Your task to perform on an android device: turn off notifications settings in the gmail app Image 0: 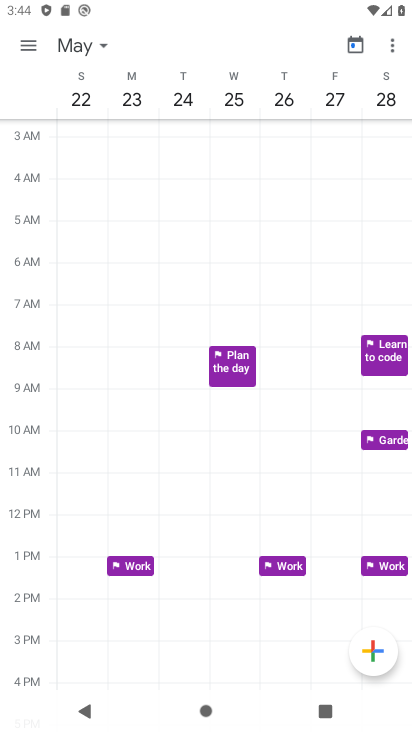
Step 0: press home button
Your task to perform on an android device: turn off notifications settings in the gmail app Image 1: 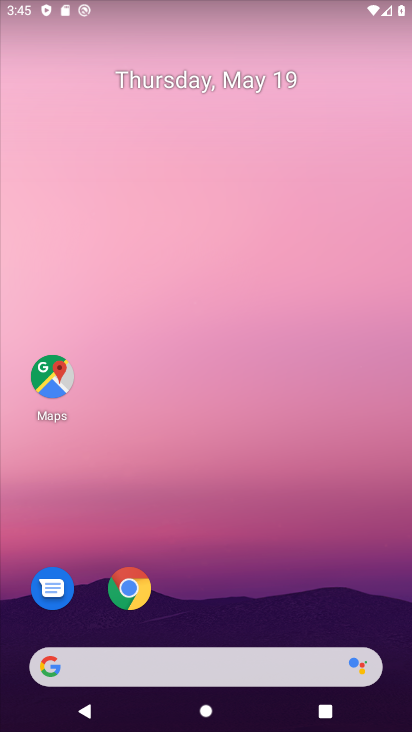
Step 1: drag from (229, 613) to (269, 180)
Your task to perform on an android device: turn off notifications settings in the gmail app Image 2: 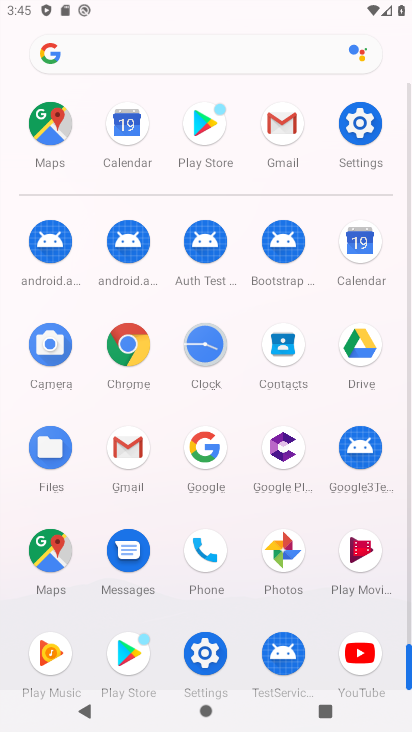
Step 2: click (131, 447)
Your task to perform on an android device: turn off notifications settings in the gmail app Image 3: 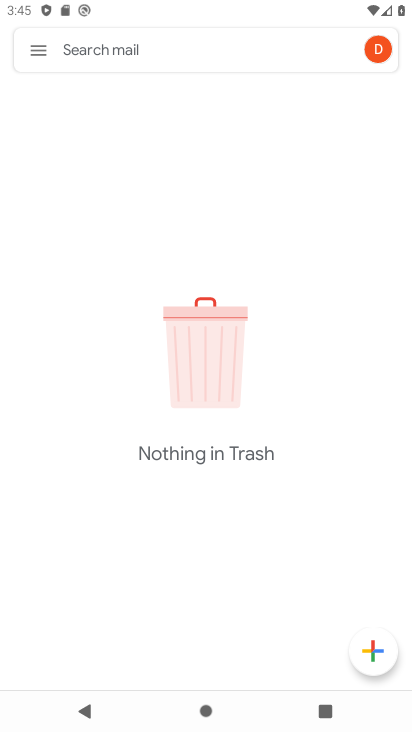
Step 3: click (31, 50)
Your task to perform on an android device: turn off notifications settings in the gmail app Image 4: 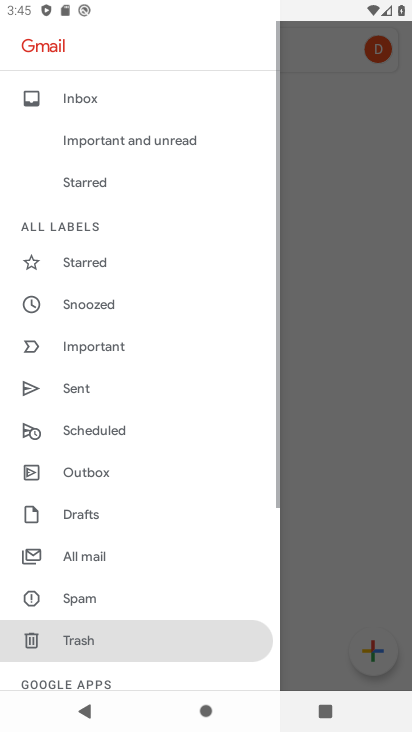
Step 4: drag from (136, 609) to (183, 333)
Your task to perform on an android device: turn off notifications settings in the gmail app Image 5: 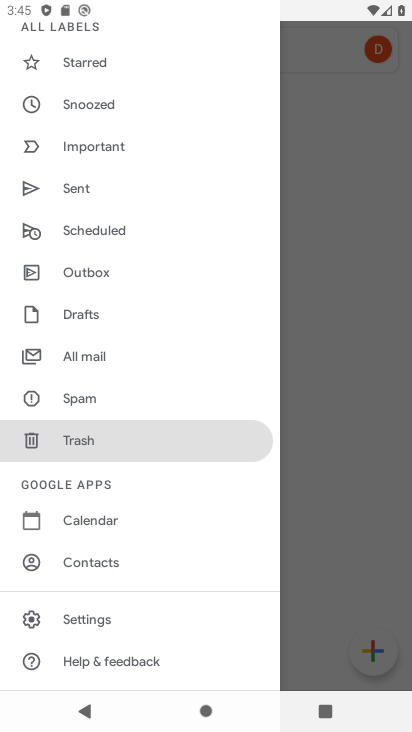
Step 5: click (94, 617)
Your task to perform on an android device: turn off notifications settings in the gmail app Image 6: 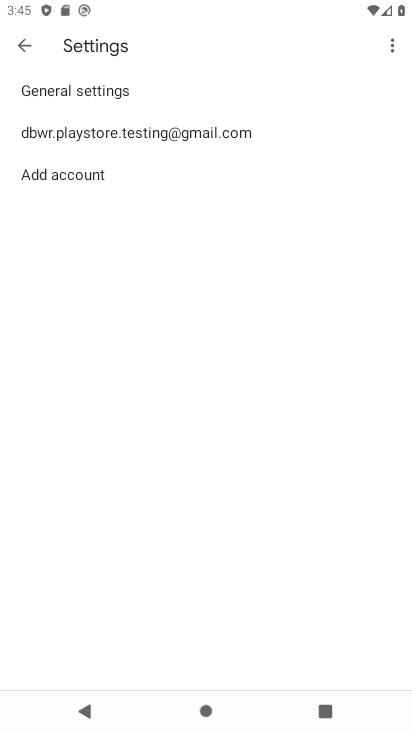
Step 6: click (97, 90)
Your task to perform on an android device: turn off notifications settings in the gmail app Image 7: 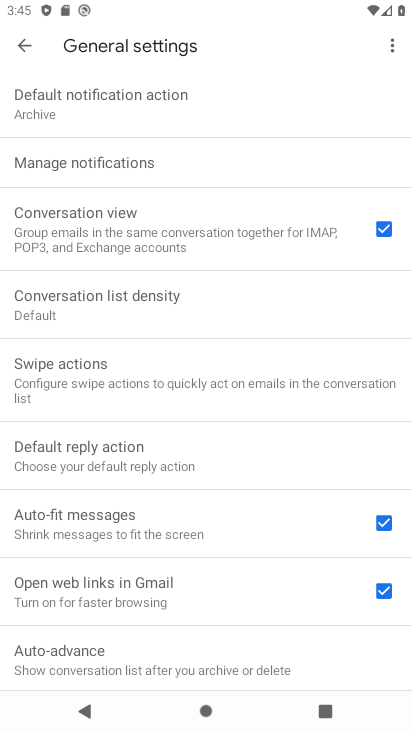
Step 7: click (127, 163)
Your task to perform on an android device: turn off notifications settings in the gmail app Image 8: 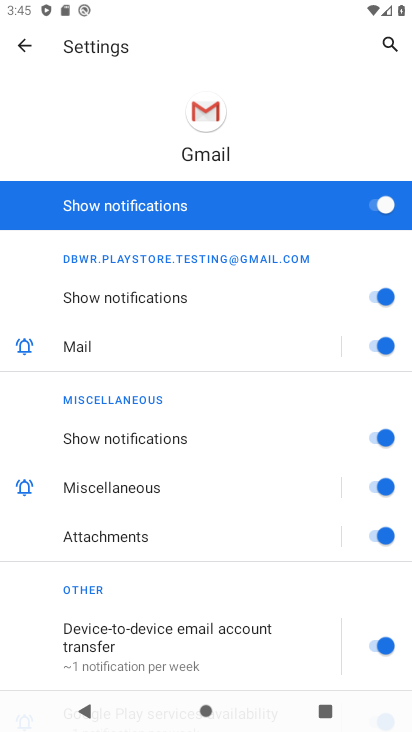
Step 8: click (361, 212)
Your task to perform on an android device: turn off notifications settings in the gmail app Image 9: 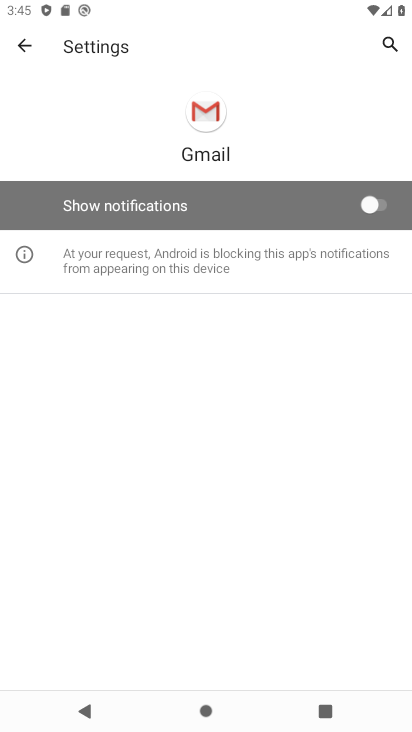
Step 9: task complete